Your task to perform on an android device: turn on bluetooth scan Image 0: 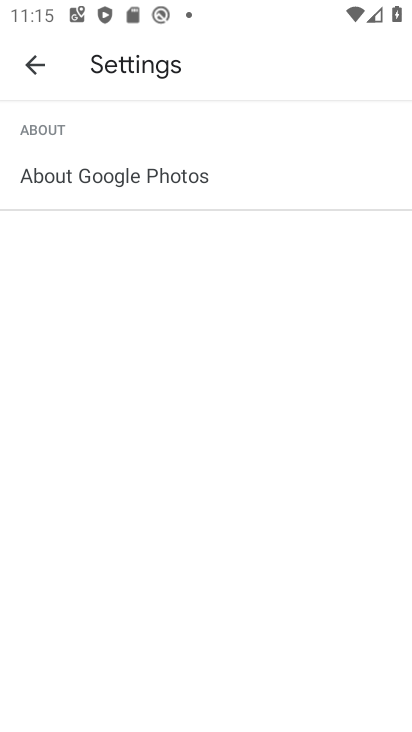
Step 0: press back button
Your task to perform on an android device: turn on bluetooth scan Image 1: 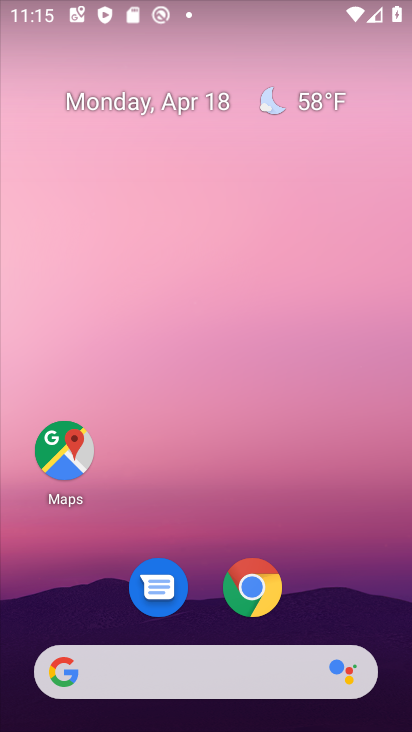
Step 1: drag from (148, 615) to (279, 182)
Your task to perform on an android device: turn on bluetooth scan Image 2: 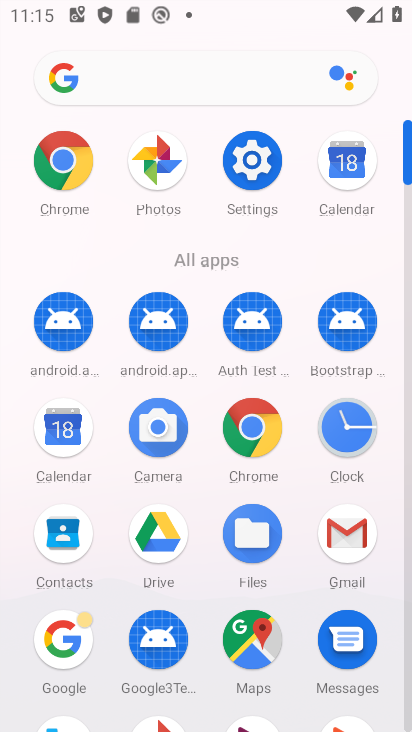
Step 2: click (237, 165)
Your task to perform on an android device: turn on bluetooth scan Image 3: 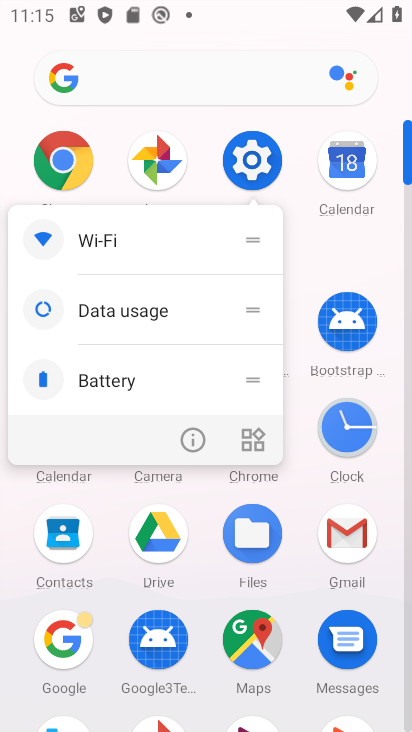
Step 3: click (251, 161)
Your task to perform on an android device: turn on bluetooth scan Image 4: 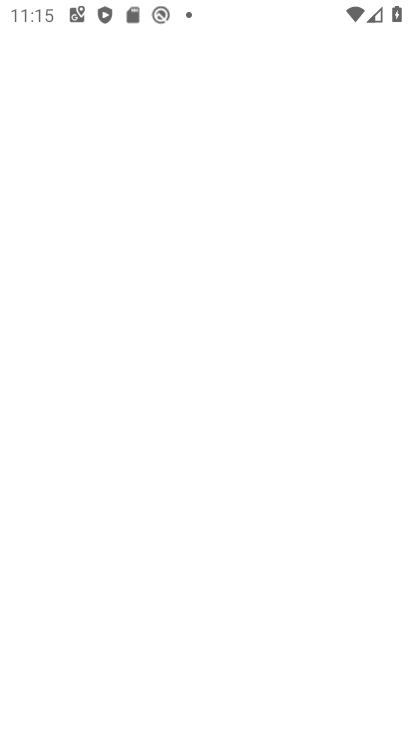
Step 4: click (261, 164)
Your task to perform on an android device: turn on bluetooth scan Image 5: 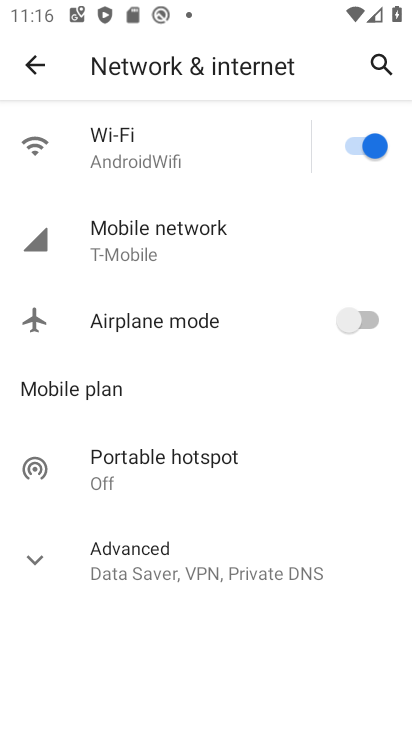
Step 5: press back button
Your task to perform on an android device: turn on bluetooth scan Image 6: 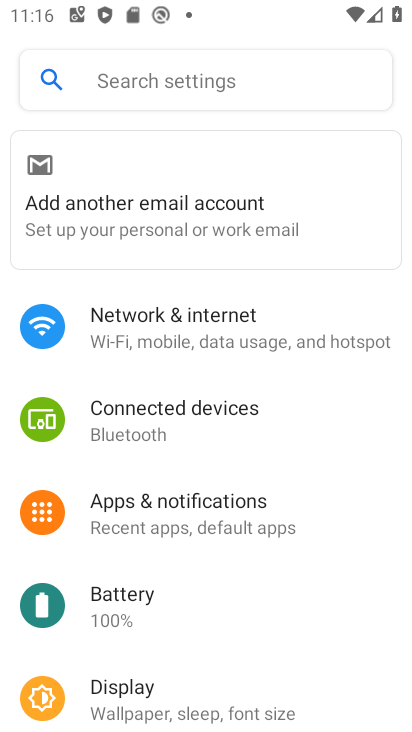
Step 6: click (157, 414)
Your task to perform on an android device: turn on bluetooth scan Image 7: 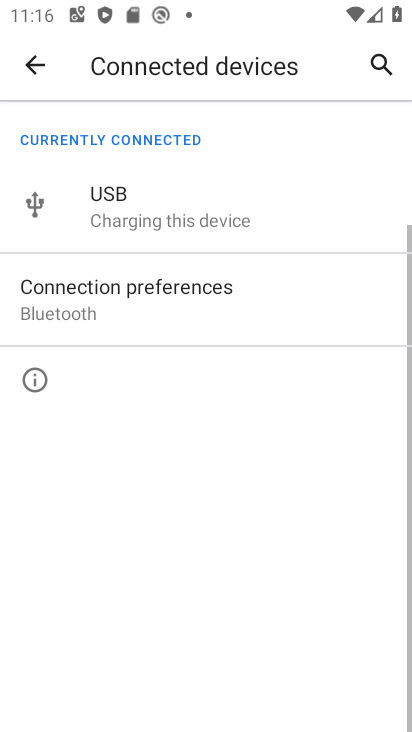
Step 7: click (149, 293)
Your task to perform on an android device: turn on bluetooth scan Image 8: 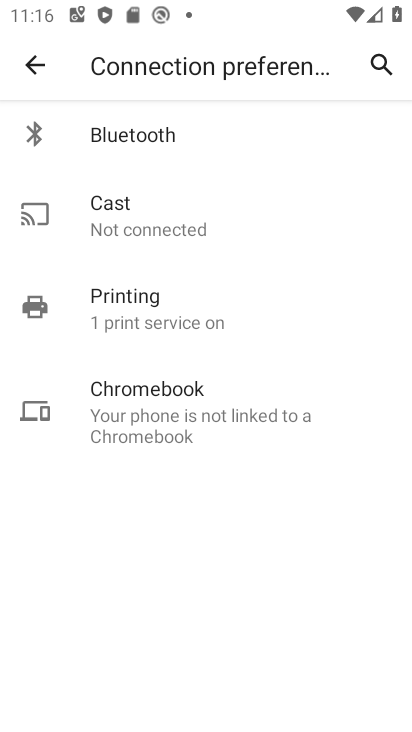
Step 8: click (191, 145)
Your task to perform on an android device: turn on bluetooth scan Image 9: 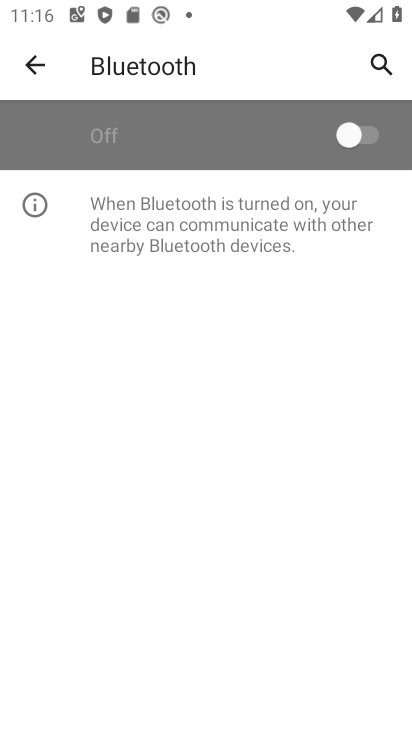
Step 9: click (385, 137)
Your task to perform on an android device: turn on bluetooth scan Image 10: 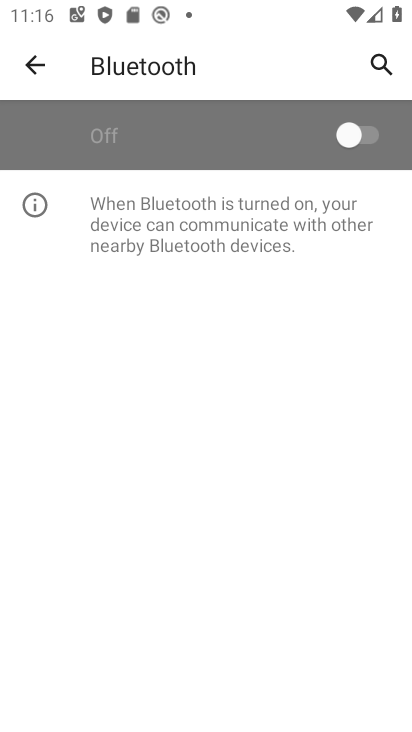
Step 10: click (373, 152)
Your task to perform on an android device: turn on bluetooth scan Image 11: 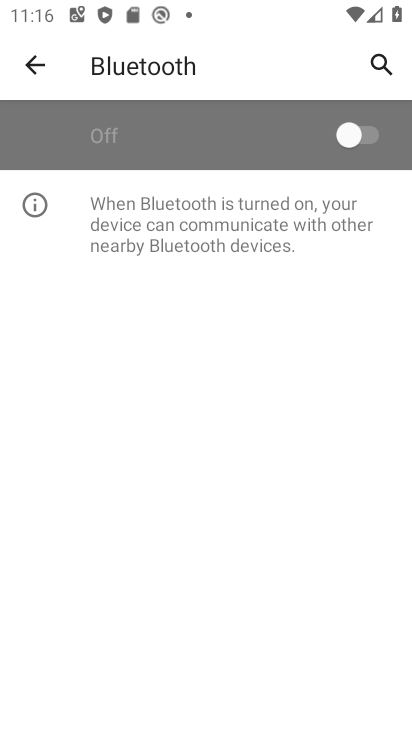
Step 11: click (382, 135)
Your task to perform on an android device: turn on bluetooth scan Image 12: 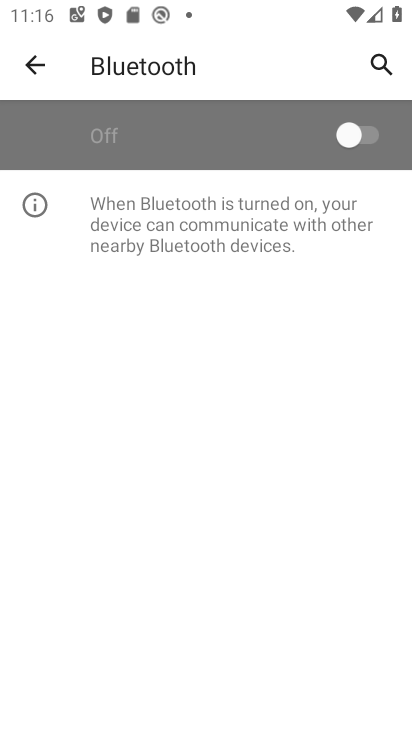
Step 12: click (384, 135)
Your task to perform on an android device: turn on bluetooth scan Image 13: 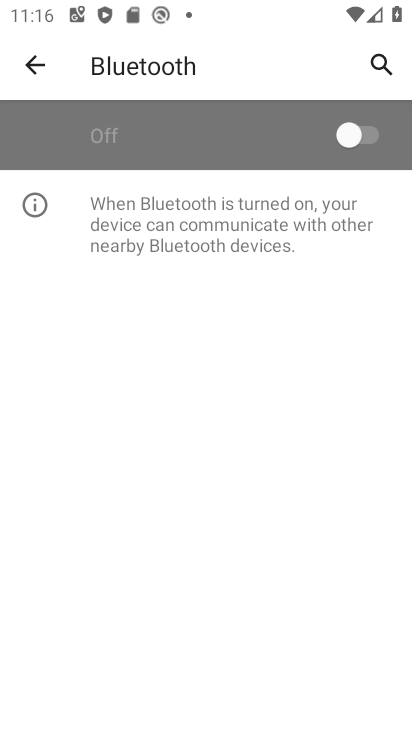
Step 13: click (384, 135)
Your task to perform on an android device: turn on bluetooth scan Image 14: 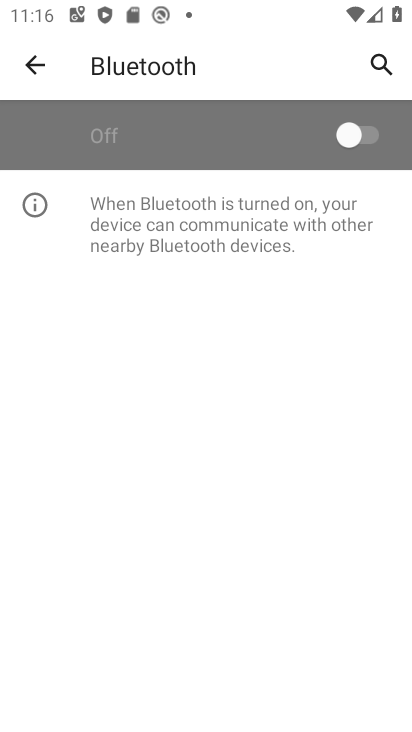
Step 14: click (384, 135)
Your task to perform on an android device: turn on bluetooth scan Image 15: 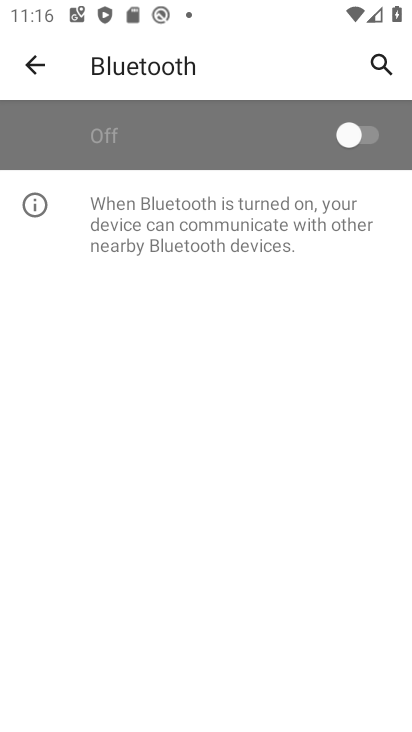
Step 15: task complete